Your task to perform on an android device: Go to Wikipedia Image 0: 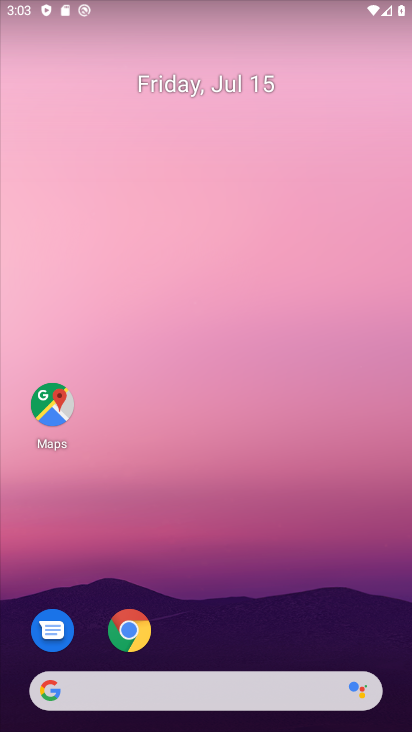
Step 0: click (151, 706)
Your task to perform on an android device: Go to Wikipedia Image 1: 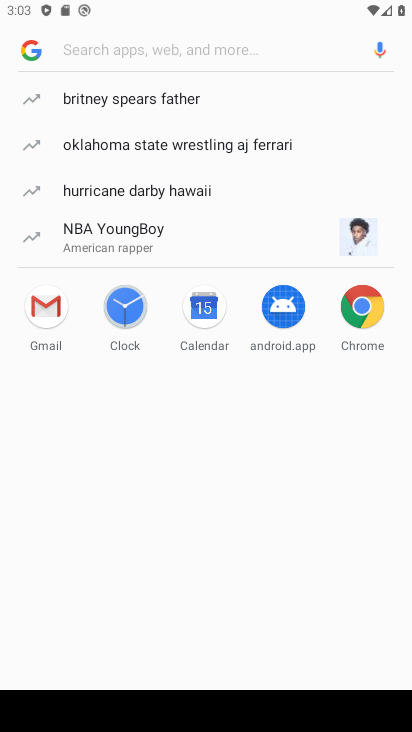
Step 1: type "wikipedia"
Your task to perform on an android device: Go to Wikipedia Image 2: 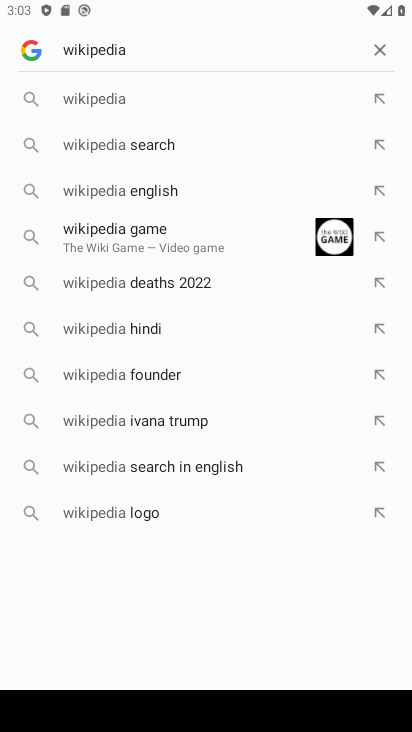
Step 2: click (165, 100)
Your task to perform on an android device: Go to Wikipedia Image 3: 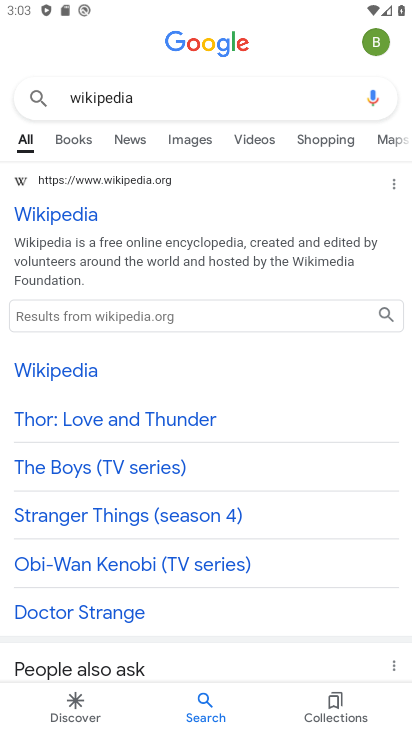
Step 3: click (121, 180)
Your task to perform on an android device: Go to Wikipedia Image 4: 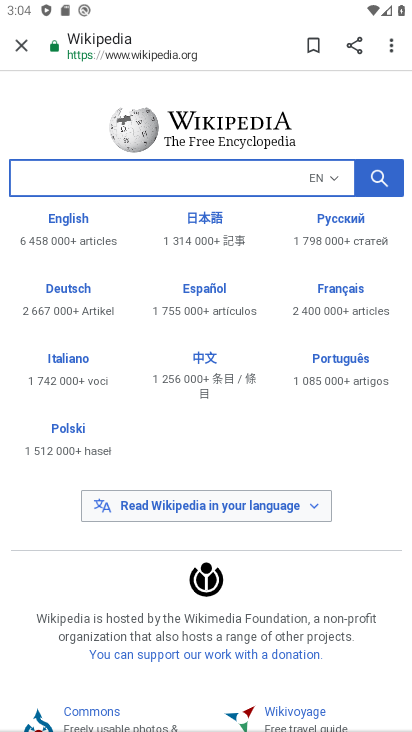
Step 4: task complete